Your task to perform on an android device: add a contact in the contacts app Image 0: 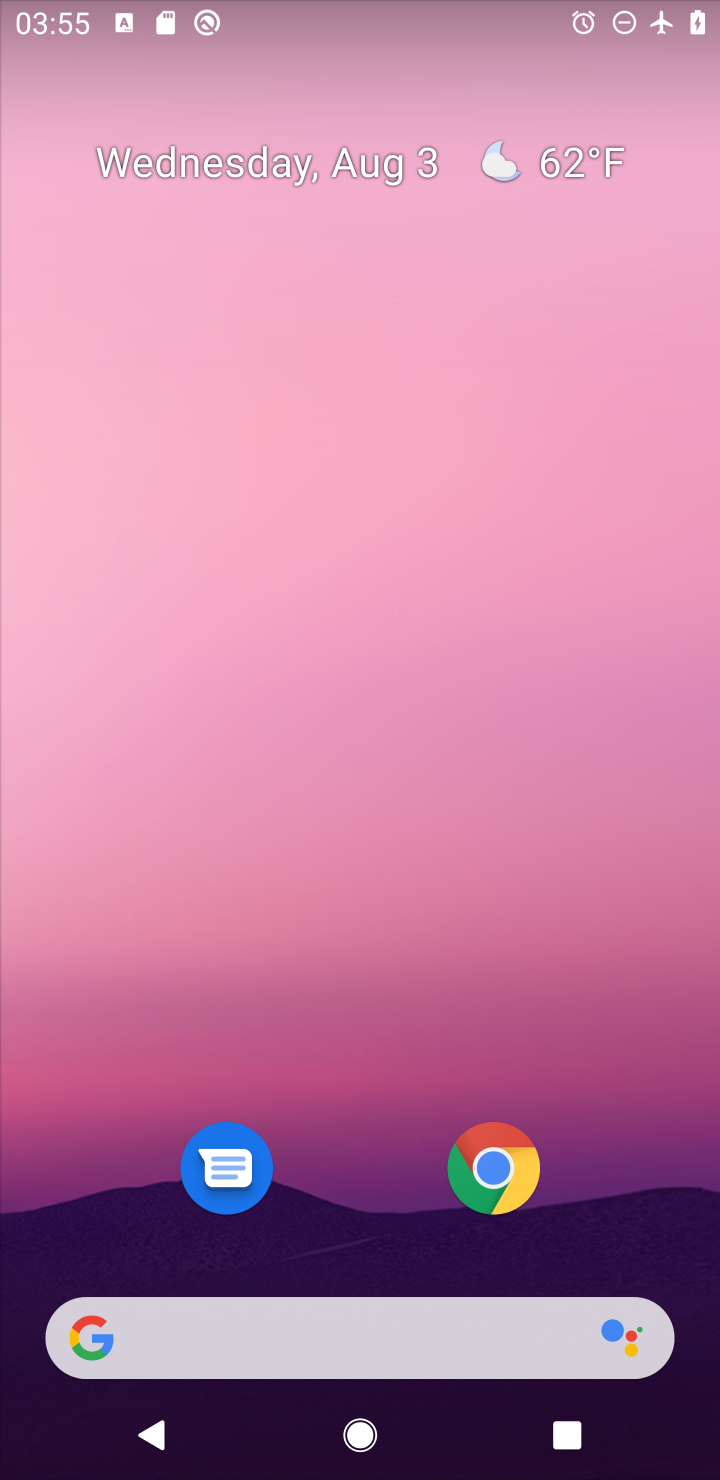
Step 0: drag from (674, 1230) to (601, 262)
Your task to perform on an android device: add a contact in the contacts app Image 1: 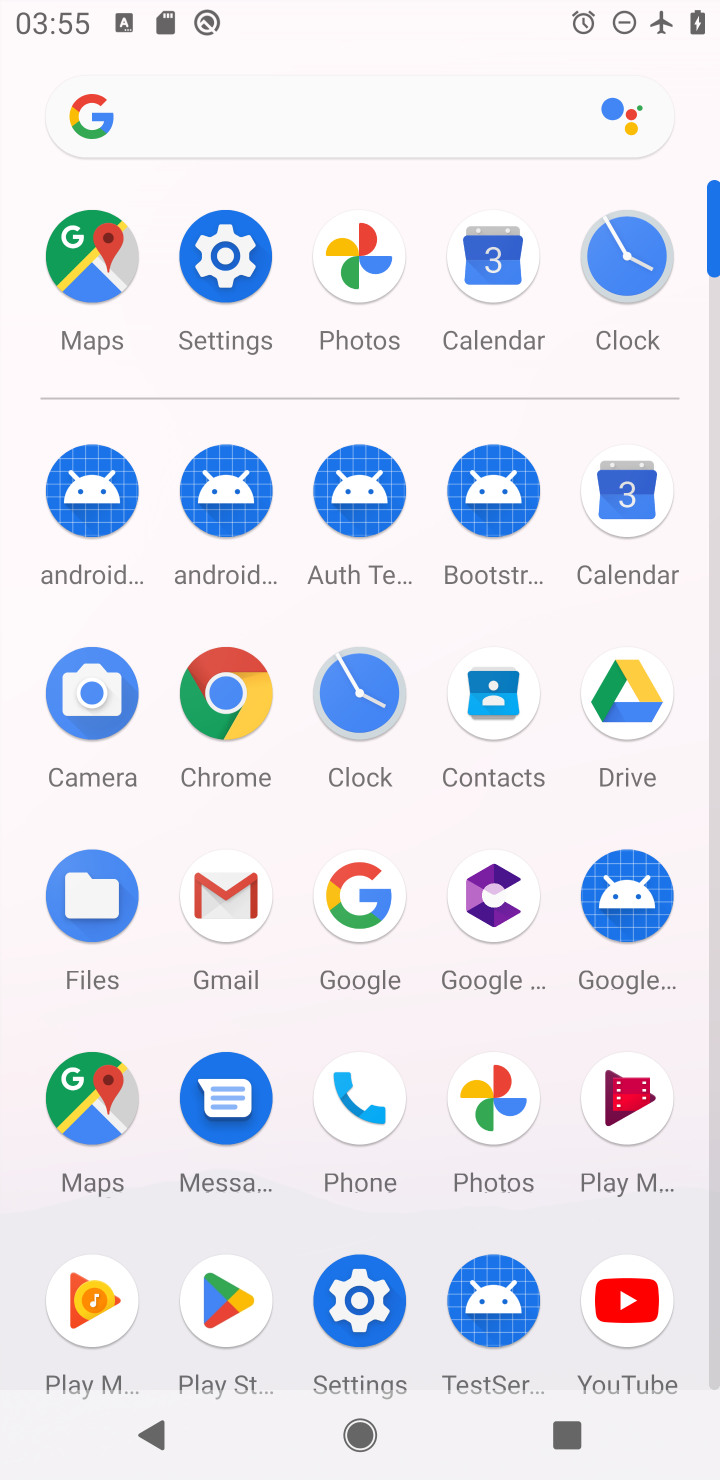
Step 1: click (485, 702)
Your task to perform on an android device: add a contact in the contacts app Image 2: 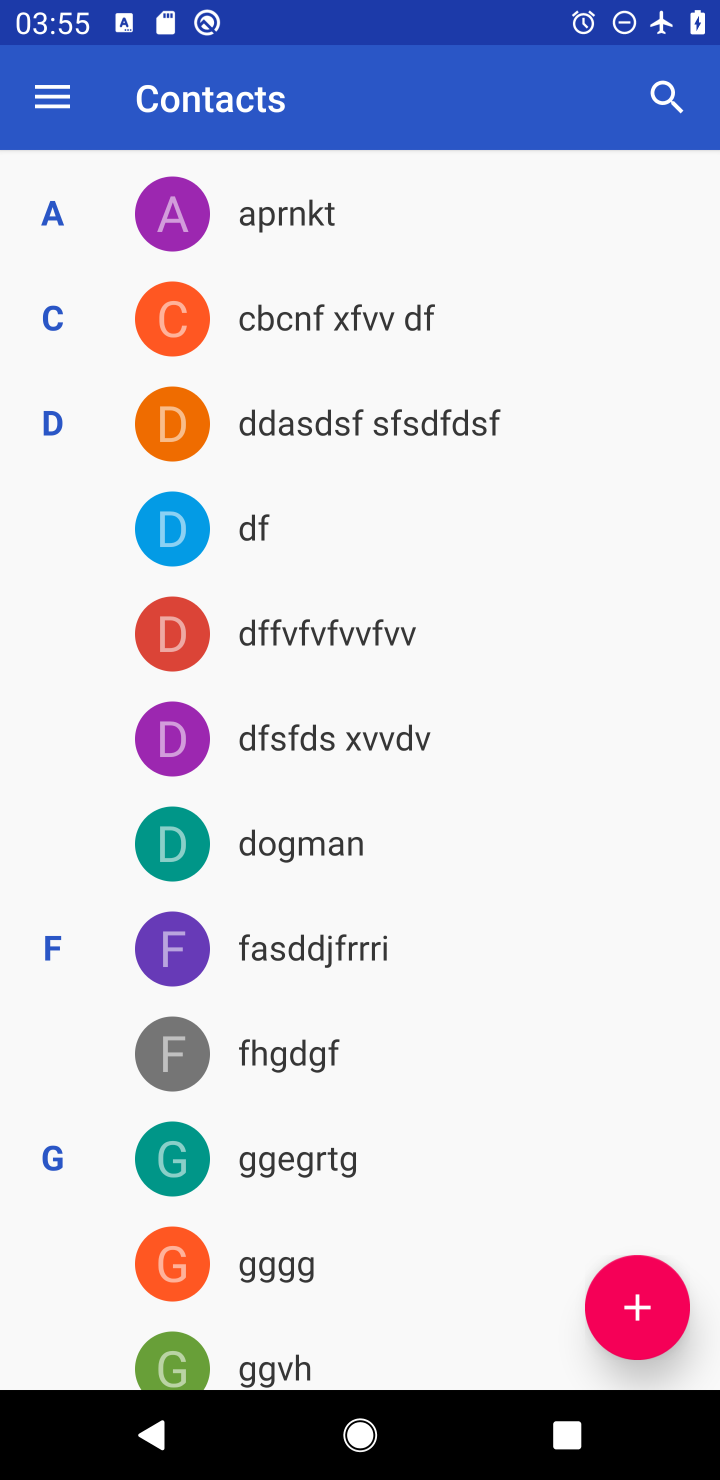
Step 2: click (630, 1308)
Your task to perform on an android device: add a contact in the contacts app Image 3: 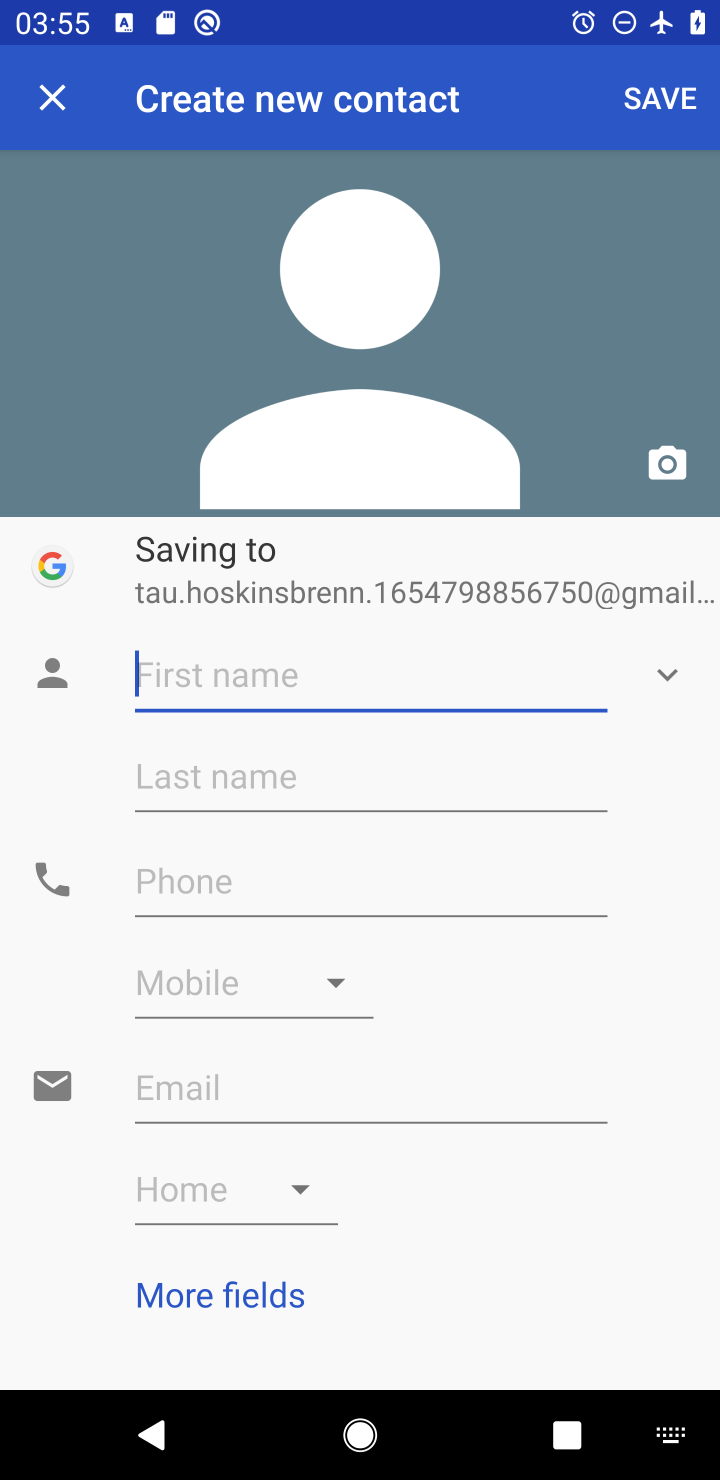
Step 3: type "mhfefdvcviop"
Your task to perform on an android device: add a contact in the contacts app Image 4: 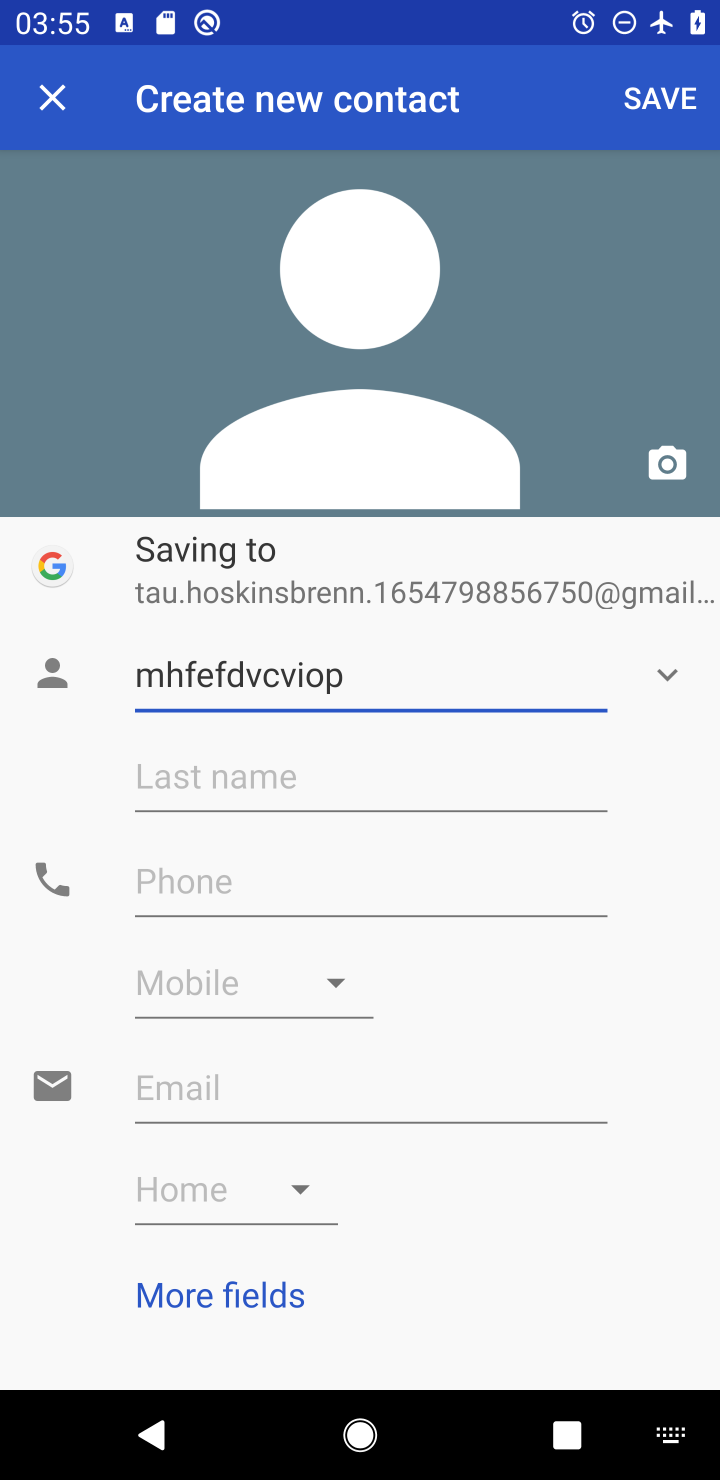
Step 4: click (168, 893)
Your task to perform on an android device: add a contact in the contacts app Image 5: 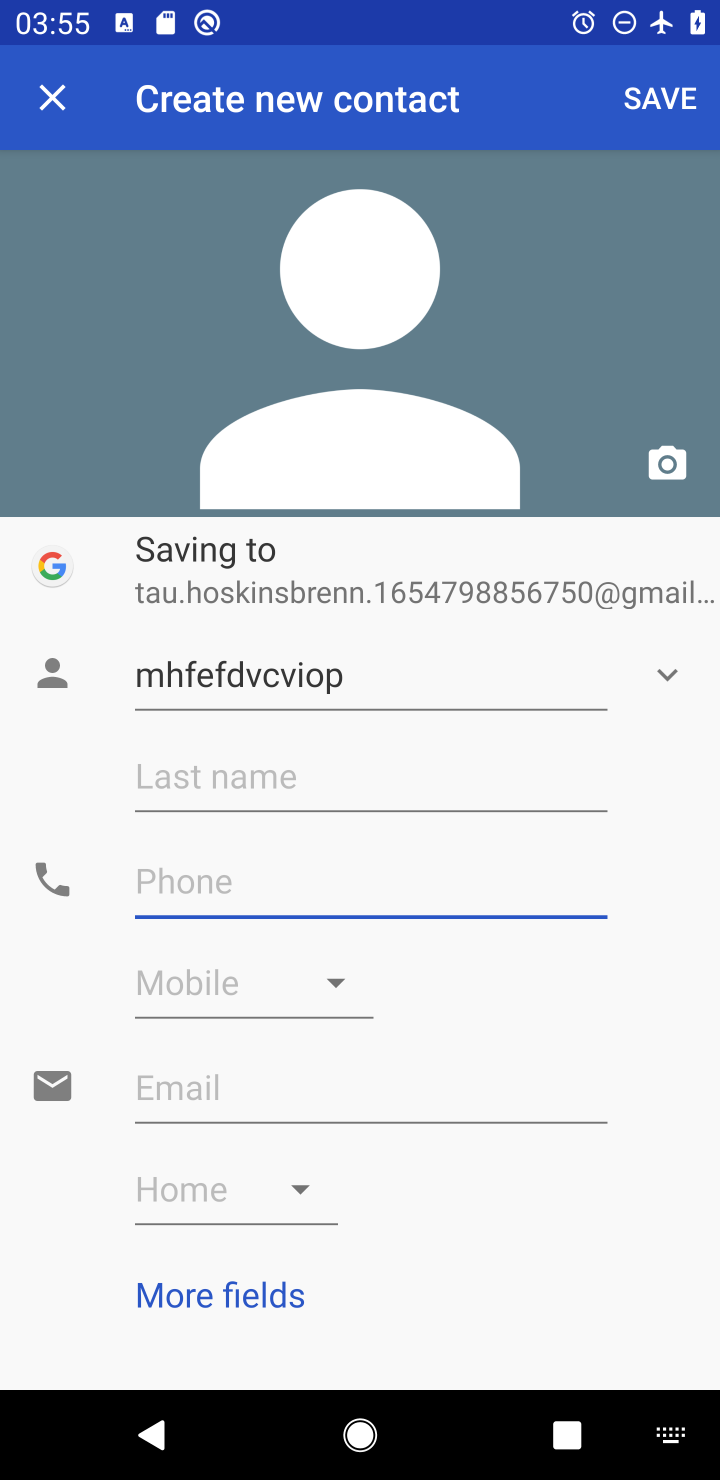
Step 5: type "8765457907"
Your task to perform on an android device: add a contact in the contacts app Image 6: 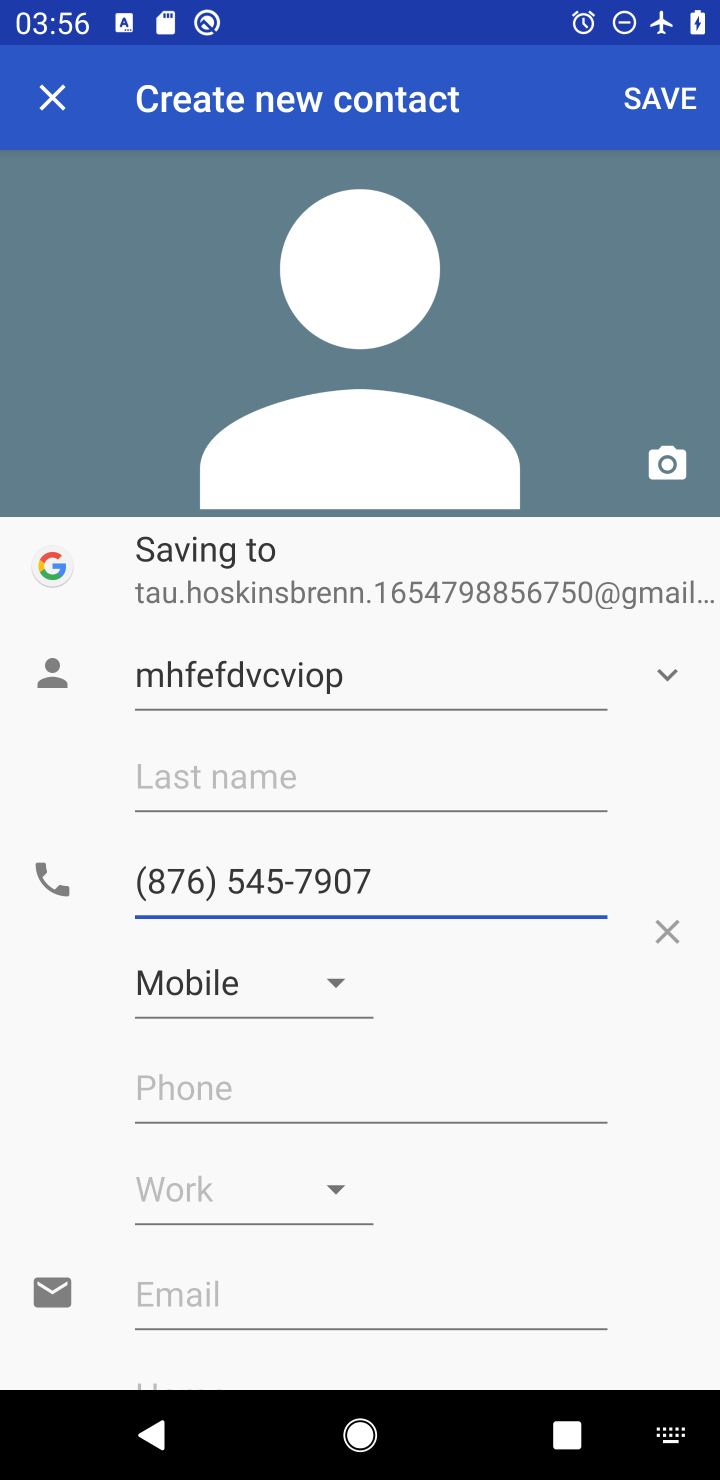
Step 6: click (659, 98)
Your task to perform on an android device: add a contact in the contacts app Image 7: 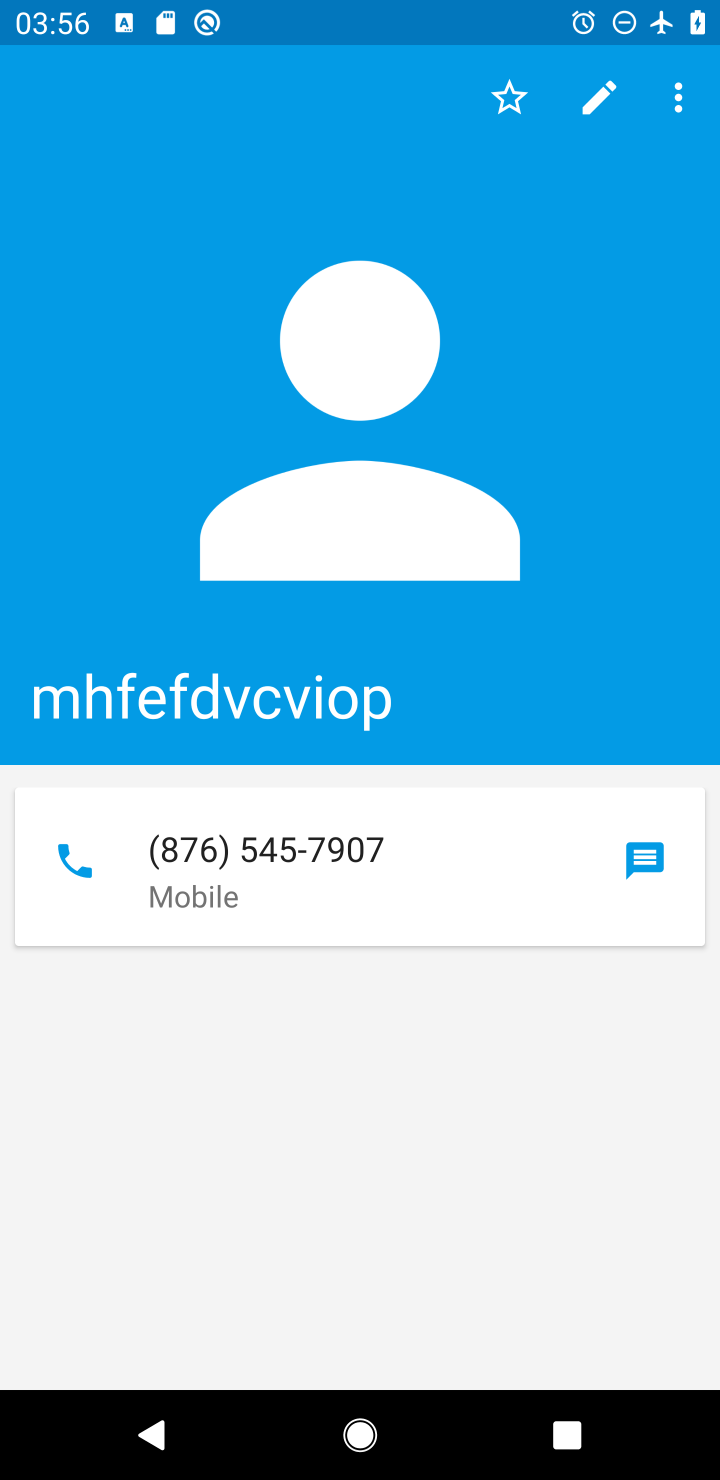
Step 7: task complete